Your task to perform on an android device: What's the weather? Image 0: 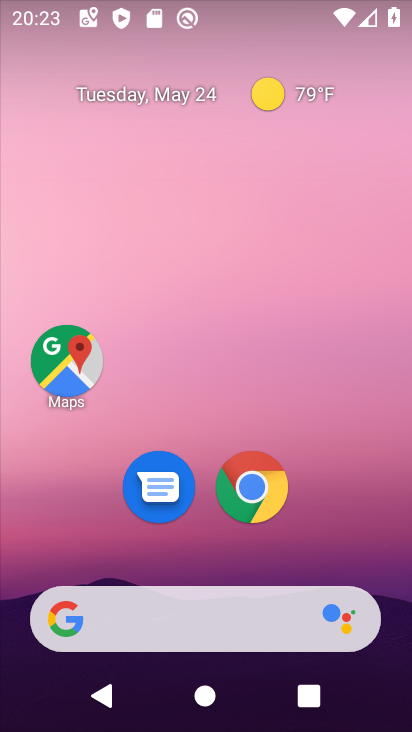
Step 0: click (190, 610)
Your task to perform on an android device: What's the weather? Image 1: 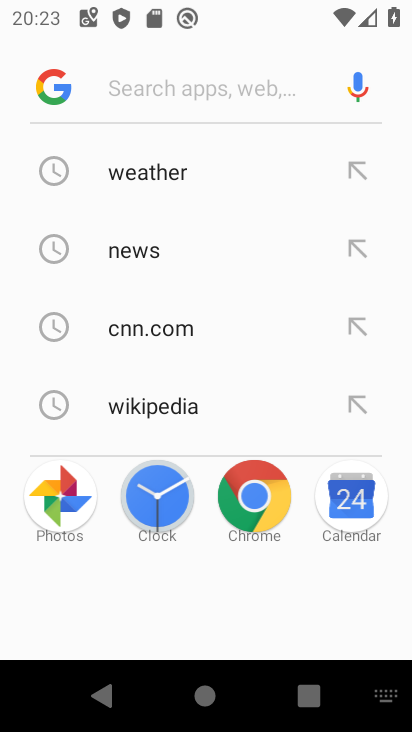
Step 1: click (102, 167)
Your task to perform on an android device: What's the weather? Image 2: 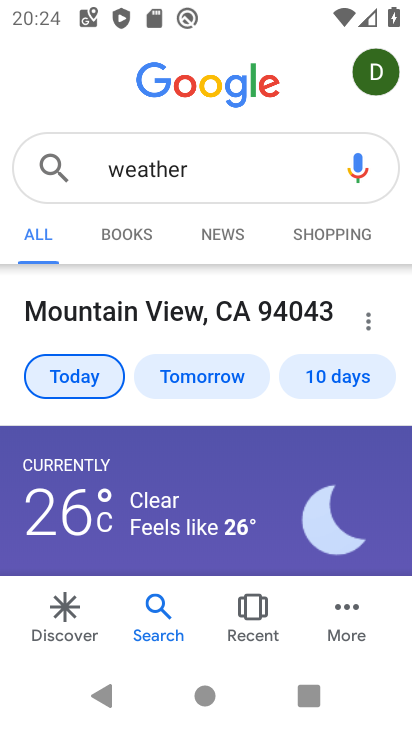
Step 2: click (113, 258)
Your task to perform on an android device: What's the weather? Image 3: 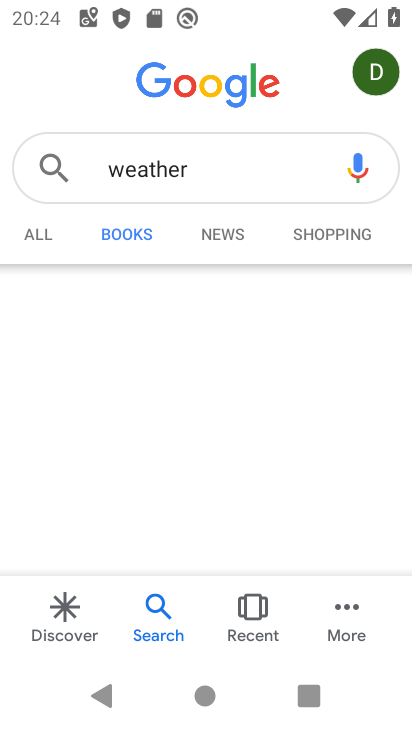
Step 3: click (113, 258)
Your task to perform on an android device: What's the weather? Image 4: 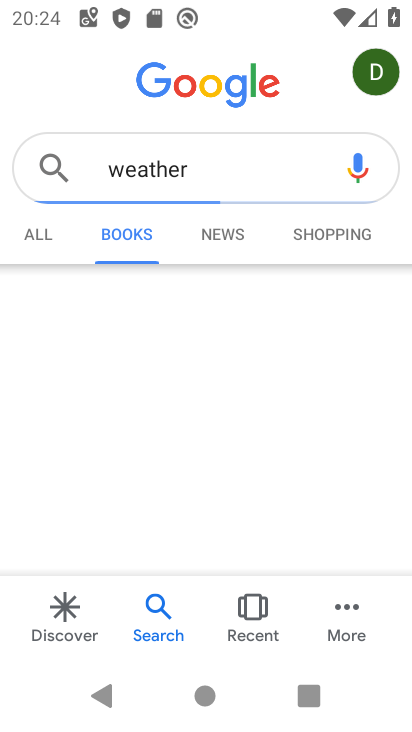
Step 4: click (113, 258)
Your task to perform on an android device: What's the weather? Image 5: 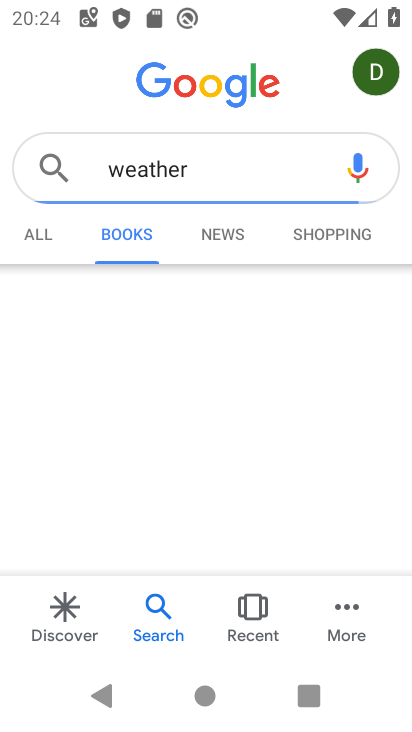
Step 5: click (113, 258)
Your task to perform on an android device: What's the weather? Image 6: 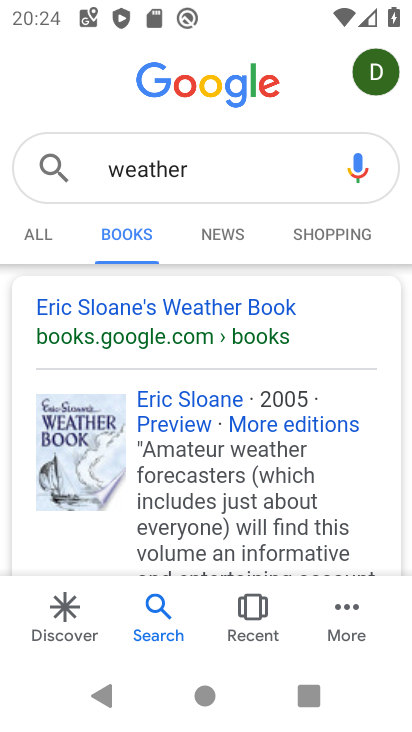
Step 6: click (114, 259)
Your task to perform on an android device: What's the weather? Image 7: 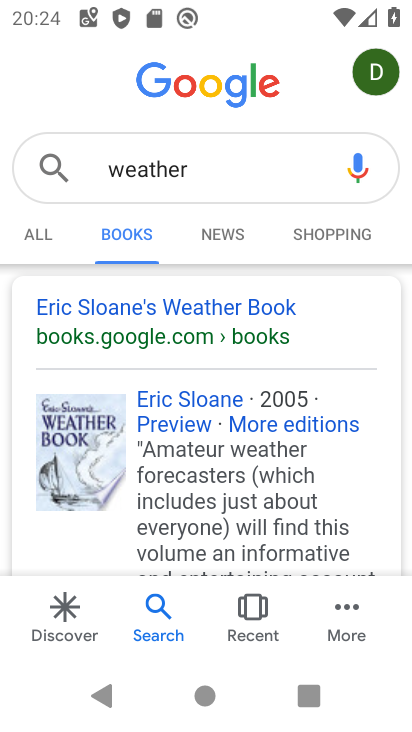
Step 7: click (114, 259)
Your task to perform on an android device: What's the weather? Image 8: 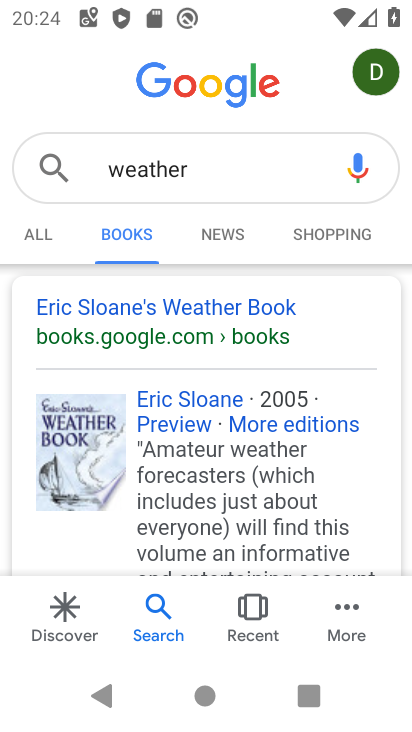
Step 8: task complete